Your task to perform on an android device: Go to accessibility settings Image 0: 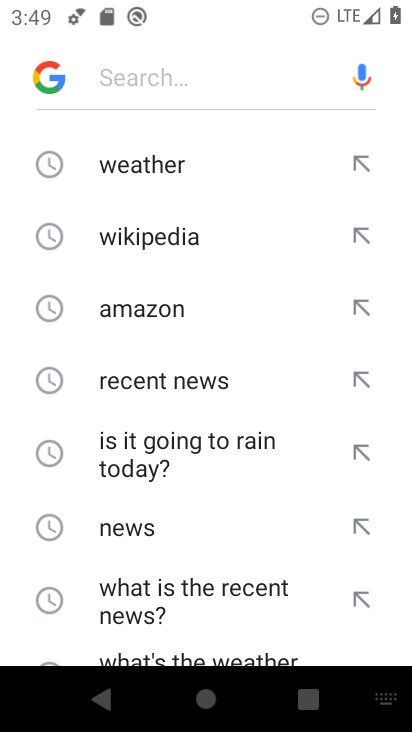
Step 0: press home button
Your task to perform on an android device: Go to accessibility settings Image 1: 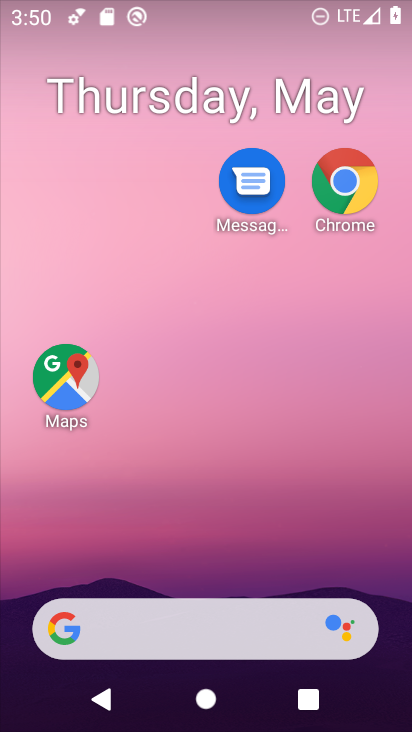
Step 1: drag from (312, 644) to (343, 2)
Your task to perform on an android device: Go to accessibility settings Image 2: 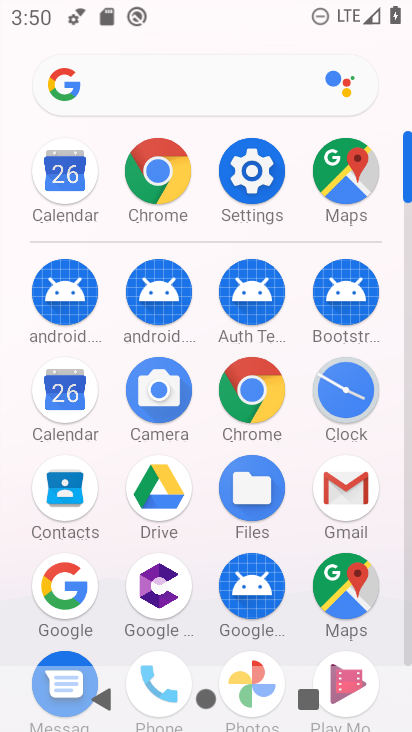
Step 2: click (251, 183)
Your task to perform on an android device: Go to accessibility settings Image 3: 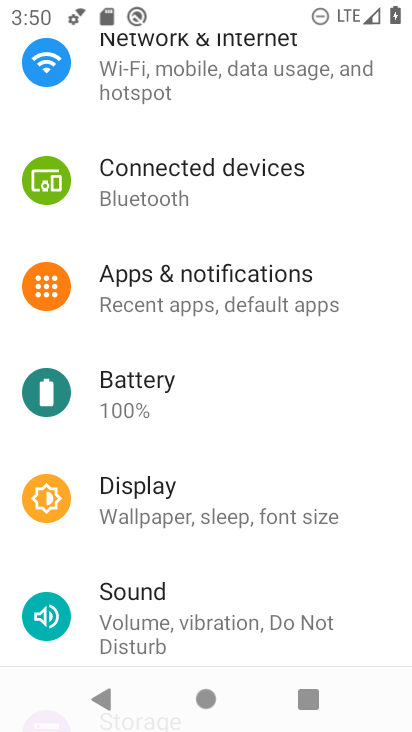
Step 3: drag from (182, 612) to (249, 32)
Your task to perform on an android device: Go to accessibility settings Image 4: 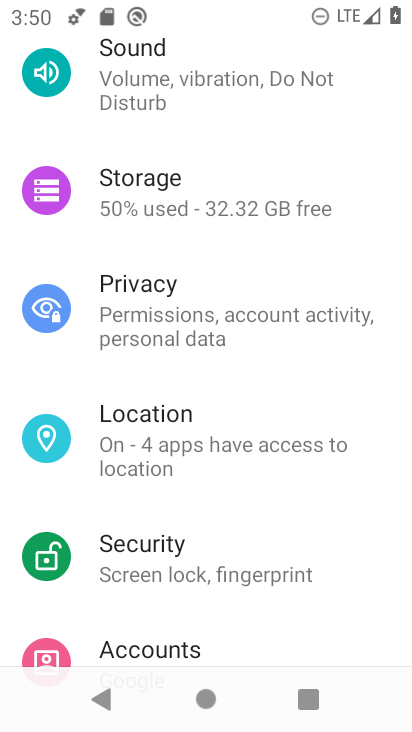
Step 4: drag from (188, 530) to (212, 110)
Your task to perform on an android device: Go to accessibility settings Image 5: 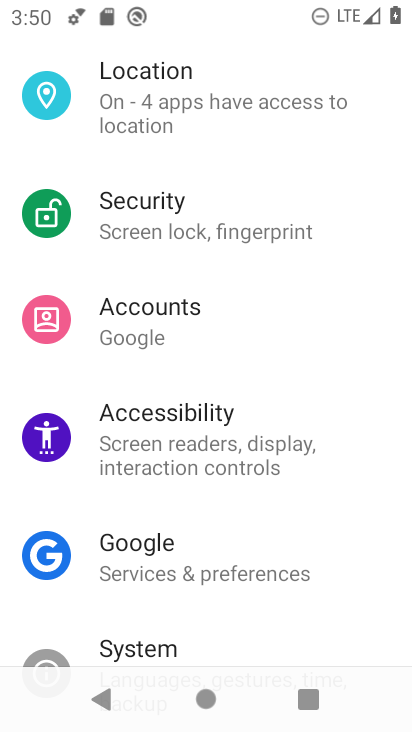
Step 5: click (193, 445)
Your task to perform on an android device: Go to accessibility settings Image 6: 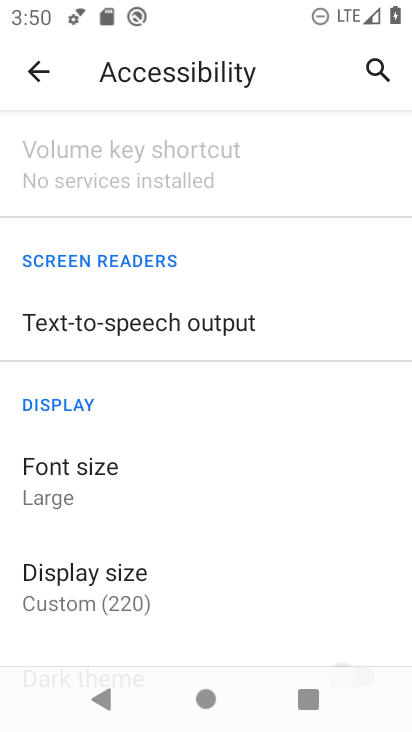
Step 6: task complete